Your task to perform on an android device: Go to Android settings Image 0: 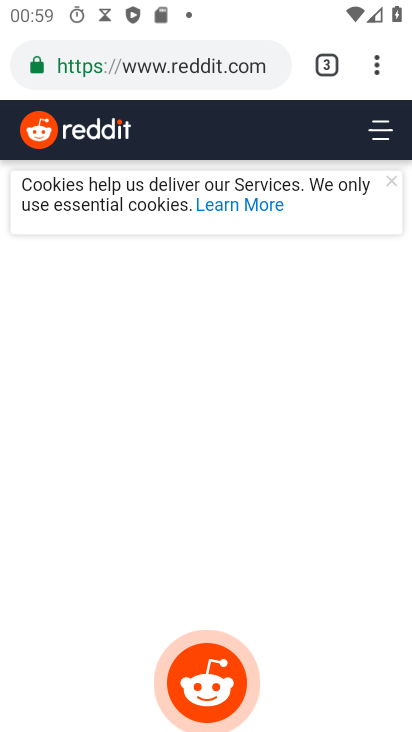
Step 0: press home button
Your task to perform on an android device: Go to Android settings Image 1: 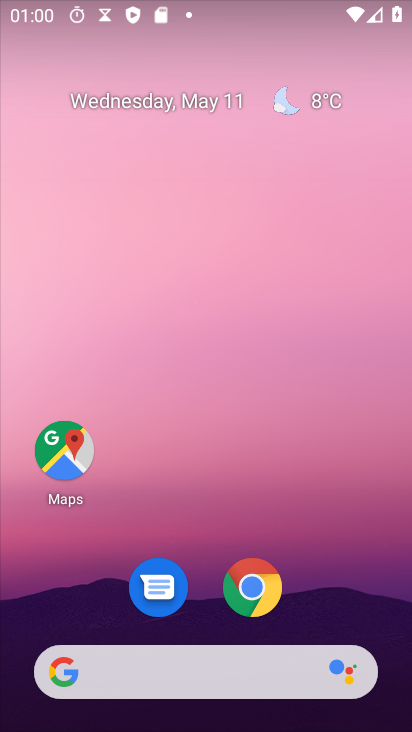
Step 1: drag from (298, 517) to (167, 69)
Your task to perform on an android device: Go to Android settings Image 2: 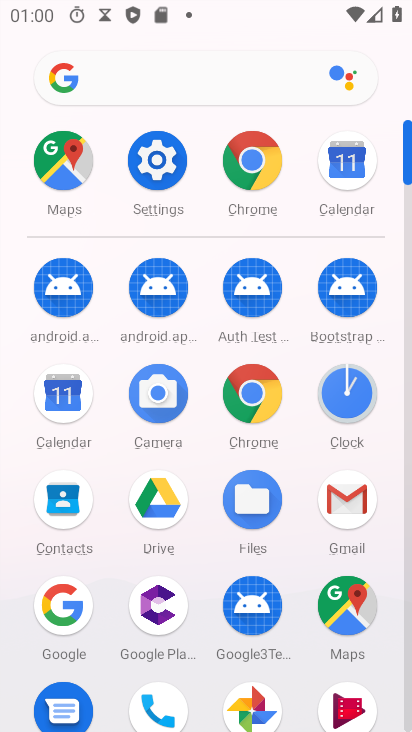
Step 2: click (161, 158)
Your task to perform on an android device: Go to Android settings Image 3: 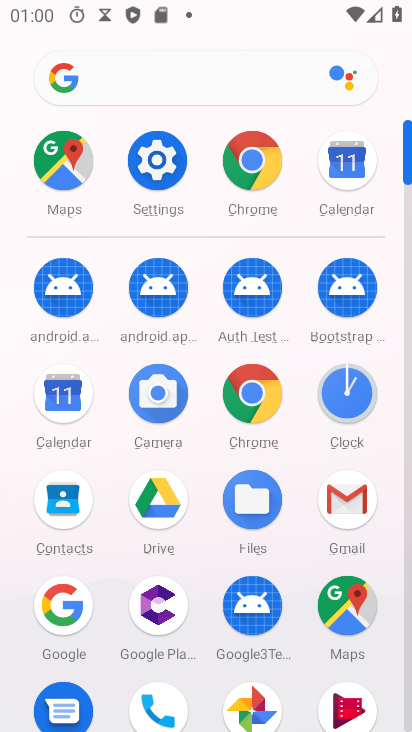
Step 3: click (160, 158)
Your task to perform on an android device: Go to Android settings Image 4: 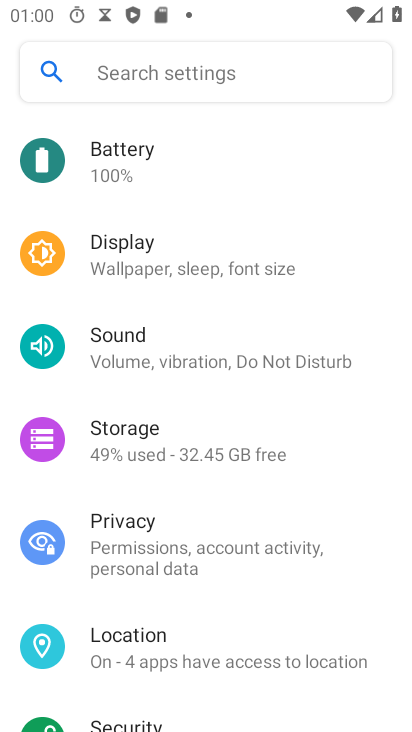
Step 4: drag from (174, 542) to (112, 169)
Your task to perform on an android device: Go to Android settings Image 5: 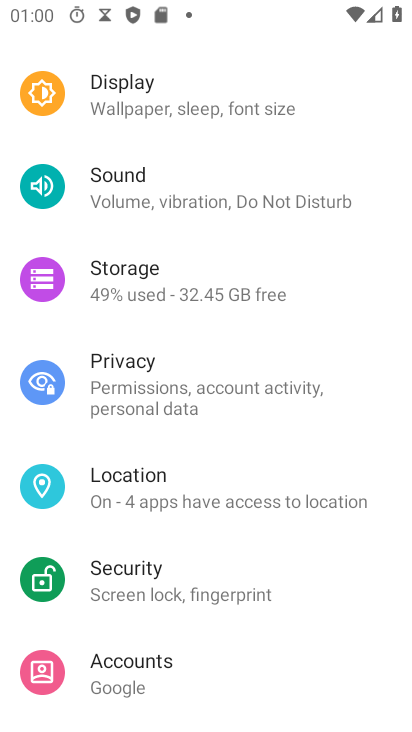
Step 5: drag from (199, 339) to (185, 105)
Your task to perform on an android device: Go to Android settings Image 6: 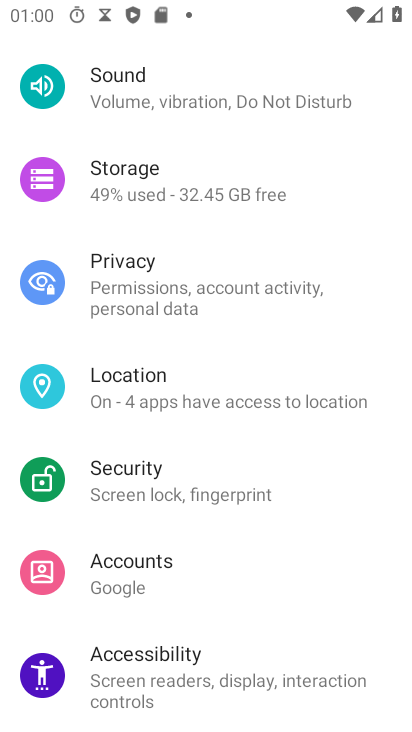
Step 6: click (131, 671)
Your task to perform on an android device: Go to Android settings Image 7: 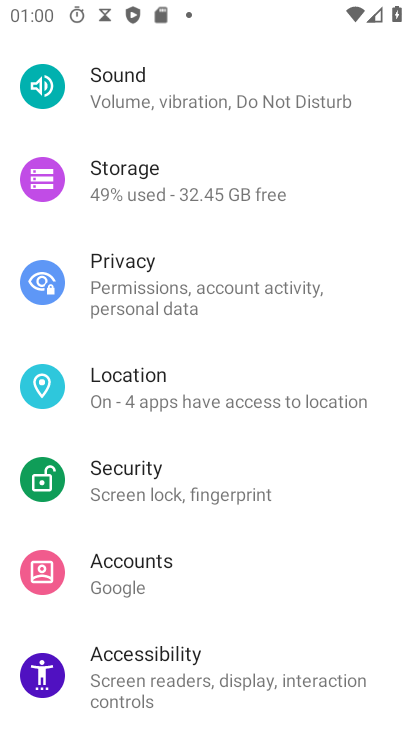
Step 7: click (132, 670)
Your task to perform on an android device: Go to Android settings Image 8: 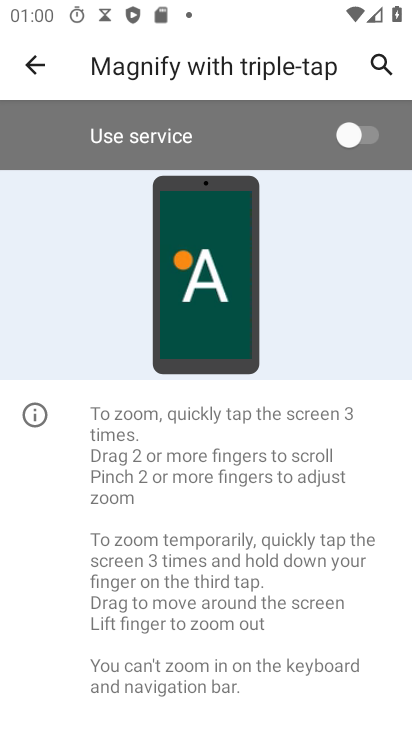
Step 8: task complete